Your task to perform on an android device: Check the weather Image 0: 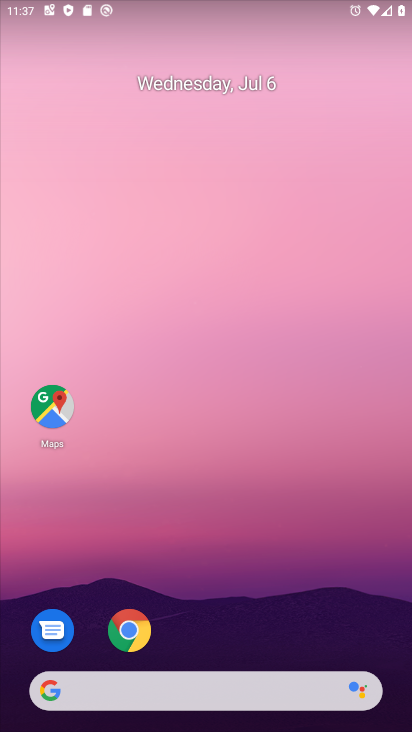
Step 0: drag from (306, 630) to (96, 33)
Your task to perform on an android device: Check the weather Image 1: 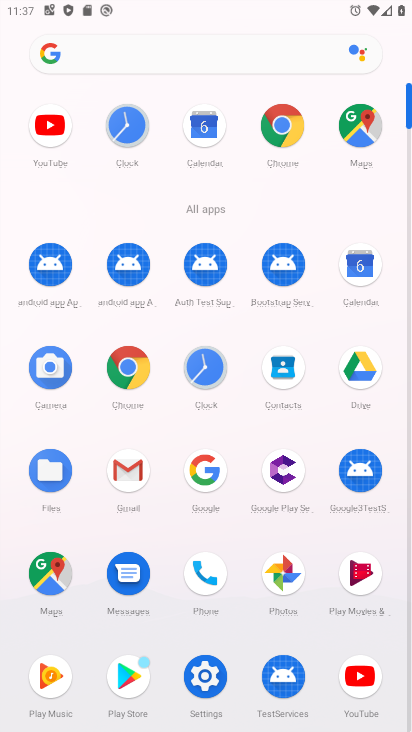
Step 1: click (276, 141)
Your task to perform on an android device: Check the weather Image 2: 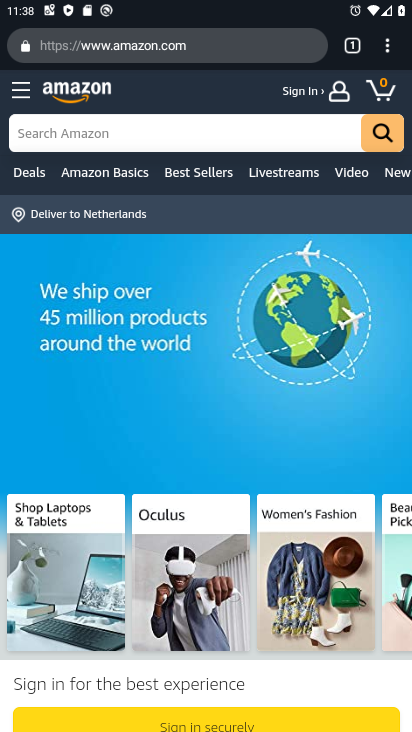
Step 2: click (232, 35)
Your task to perform on an android device: Check the weather Image 3: 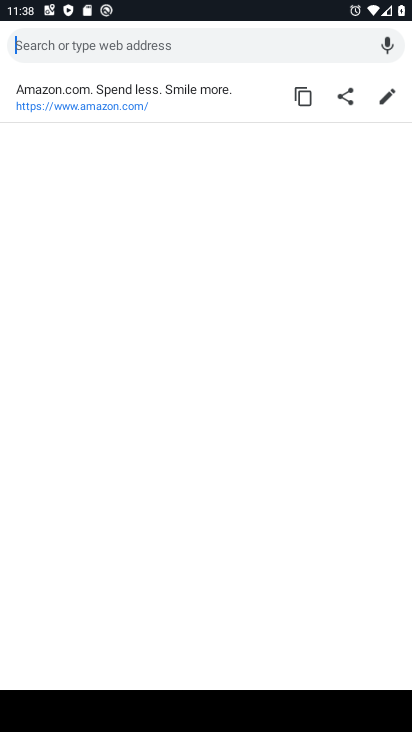
Step 3: type "weather"
Your task to perform on an android device: Check the weather Image 4: 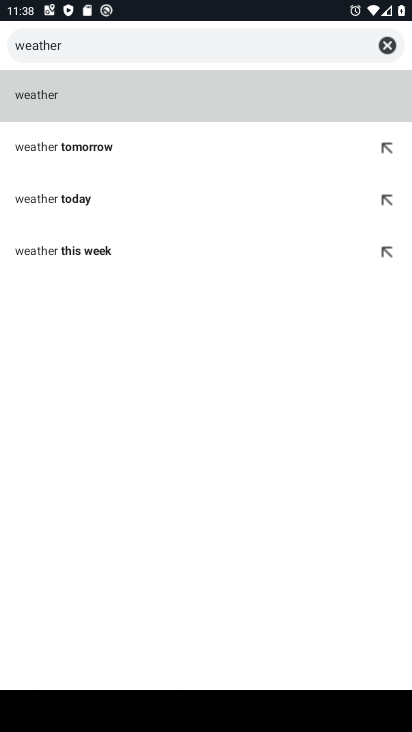
Step 4: click (177, 97)
Your task to perform on an android device: Check the weather Image 5: 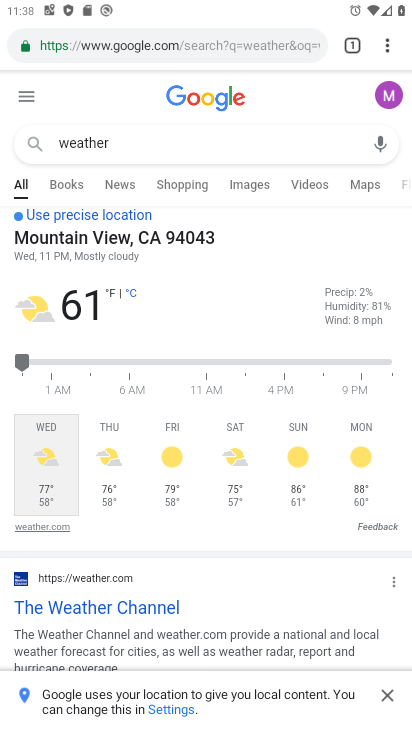
Step 5: task complete